Your task to perform on an android device: Go to battery settings Image 0: 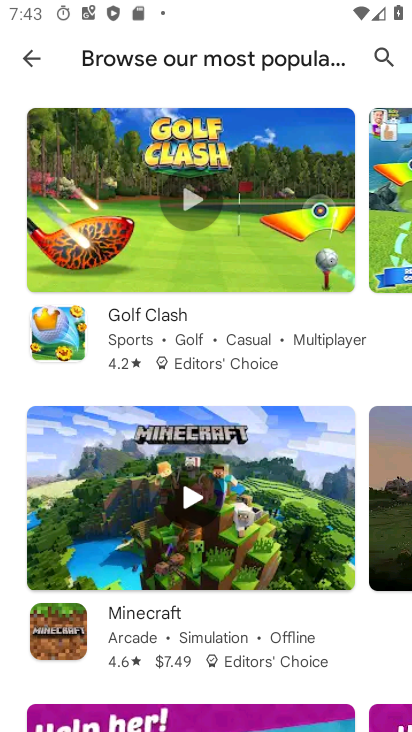
Step 0: press home button
Your task to perform on an android device: Go to battery settings Image 1: 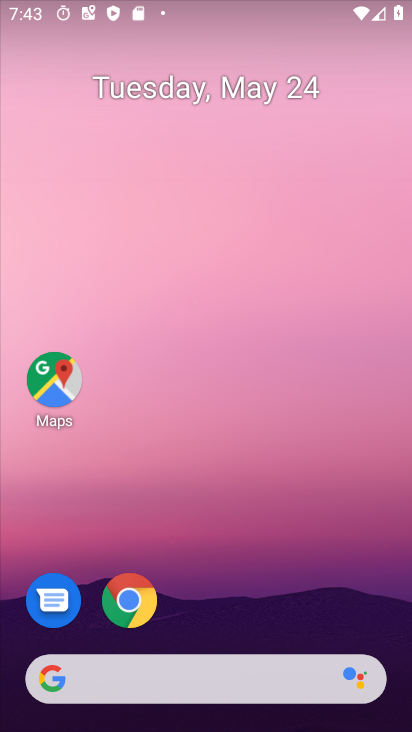
Step 1: drag from (229, 598) to (264, 1)
Your task to perform on an android device: Go to battery settings Image 2: 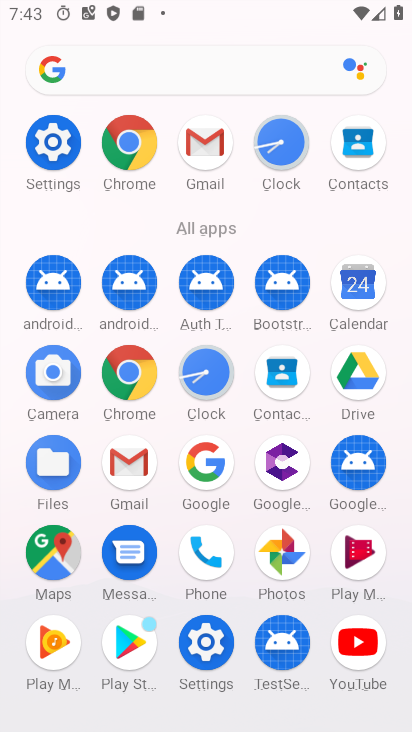
Step 2: click (41, 136)
Your task to perform on an android device: Go to battery settings Image 3: 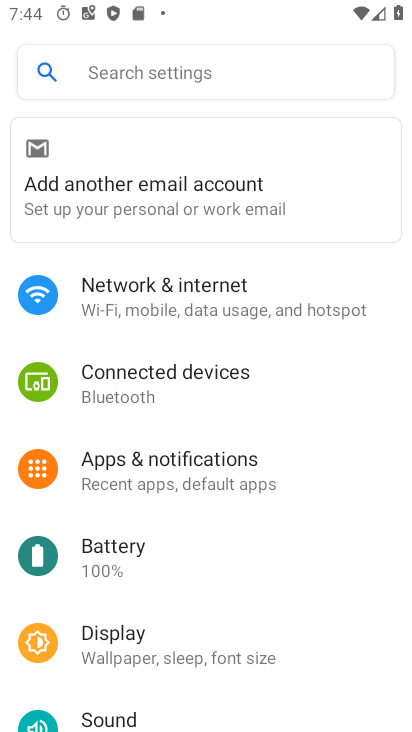
Step 3: click (131, 543)
Your task to perform on an android device: Go to battery settings Image 4: 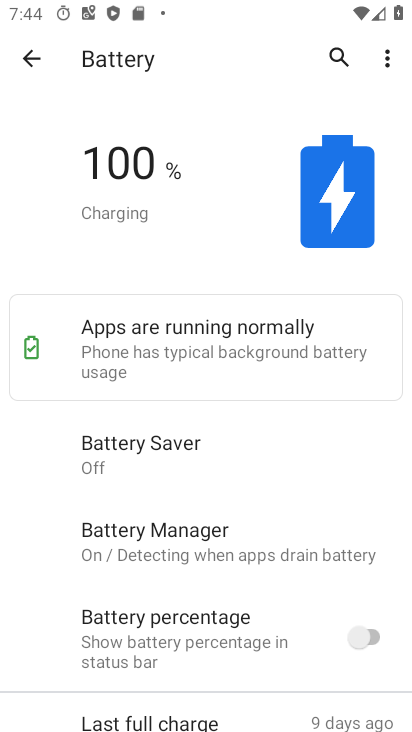
Step 4: task complete